Your task to perform on an android device: Show me popular games on the Play Store Image 0: 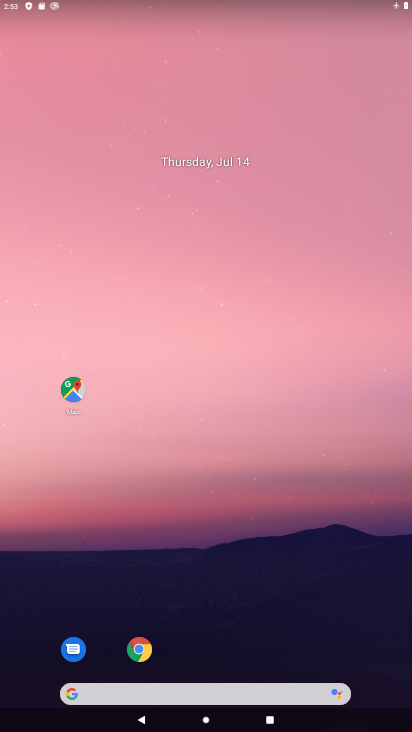
Step 0: drag from (195, 646) to (220, 13)
Your task to perform on an android device: Show me popular games on the Play Store Image 1: 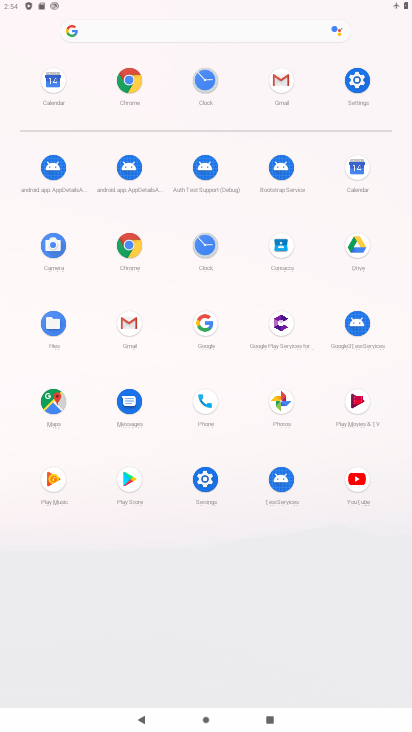
Step 1: click (135, 476)
Your task to perform on an android device: Show me popular games on the Play Store Image 2: 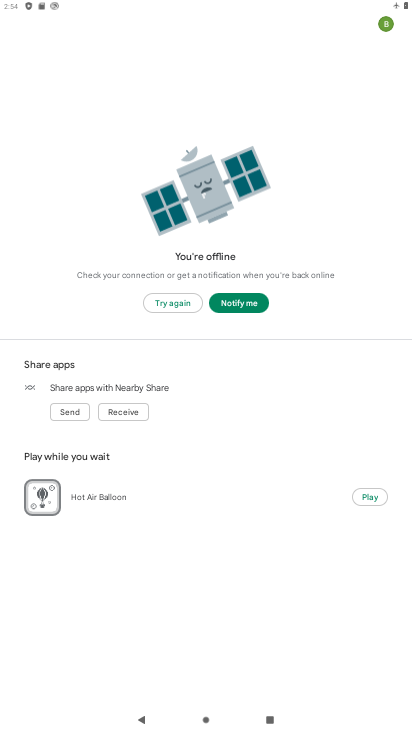
Step 2: click (183, 307)
Your task to perform on an android device: Show me popular games on the Play Store Image 3: 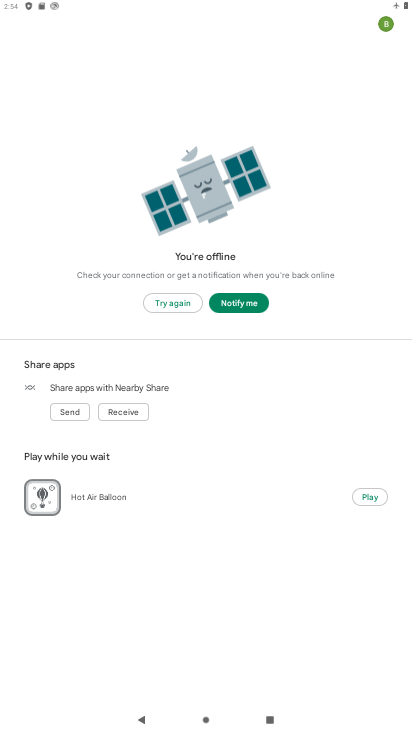
Step 3: click (183, 307)
Your task to perform on an android device: Show me popular games on the Play Store Image 4: 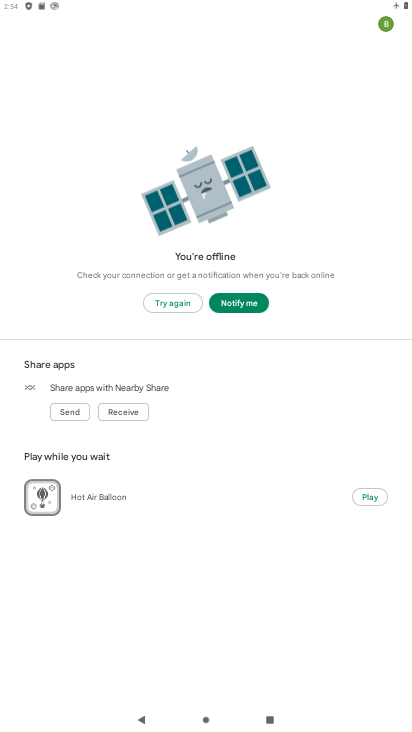
Step 4: task complete